Your task to perform on an android device: Open Wikipedia Image 0: 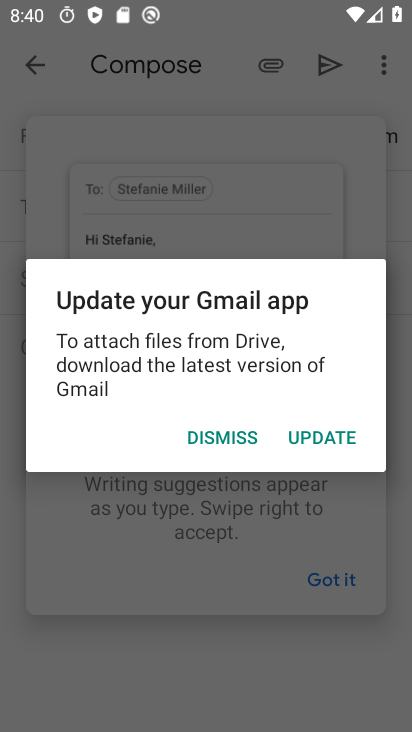
Step 0: press home button
Your task to perform on an android device: Open Wikipedia Image 1: 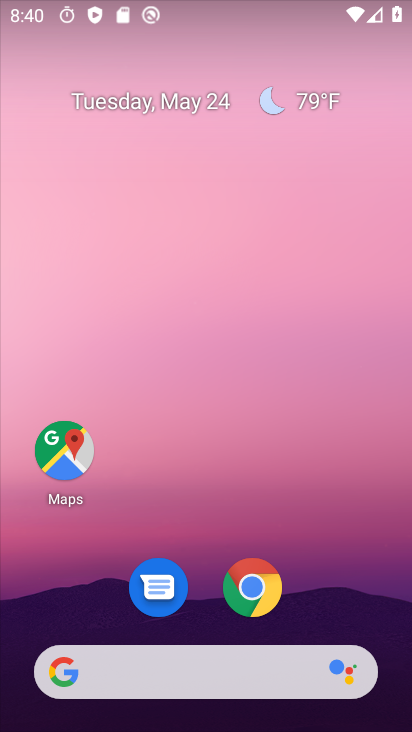
Step 1: click (253, 586)
Your task to perform on an android device: Open Wikipedia Image 2: 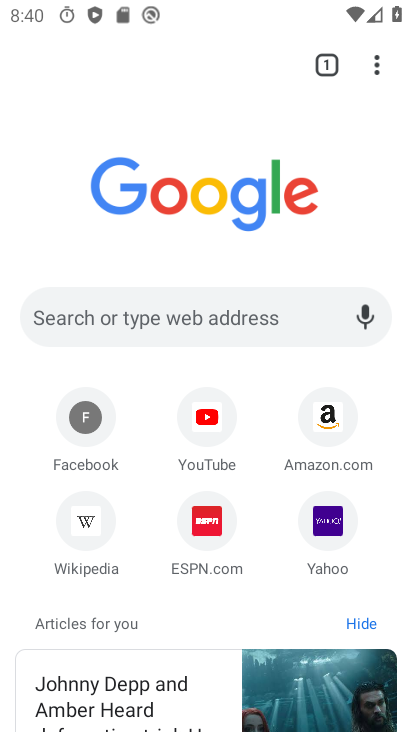
Step 2: click (197, 324)
Your task to perform on an android device: Open Wikipedia Image 3: 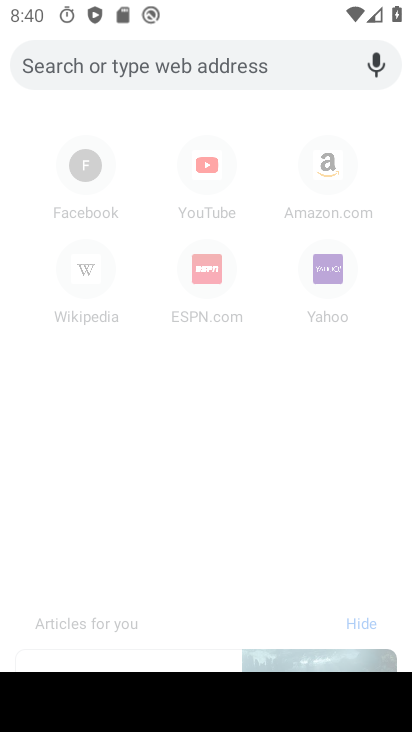
Step 3: type "Wikipedia"
Your task to perform on an android device: Open Wikipedia Image 4: 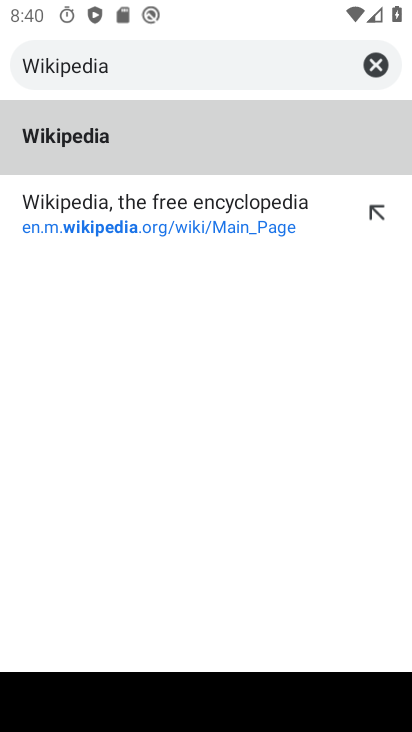
Step 4: click (42, 140)
Your task to perform on an android device: Open Wikipedia Image 5: 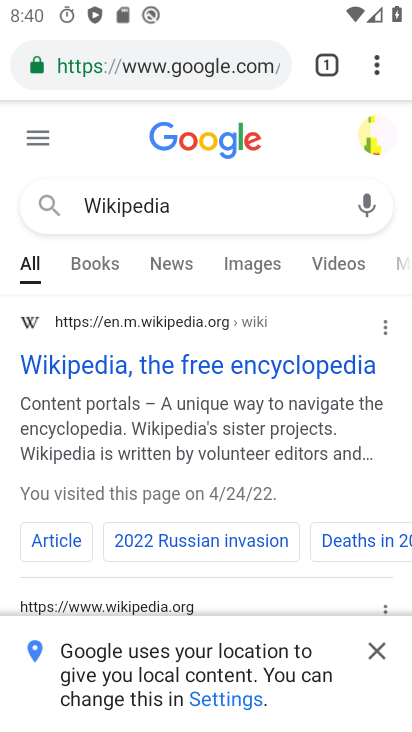
Step 5: click (130, 372)
Your task to perform on an android device: Open Wikipedia Image 6: 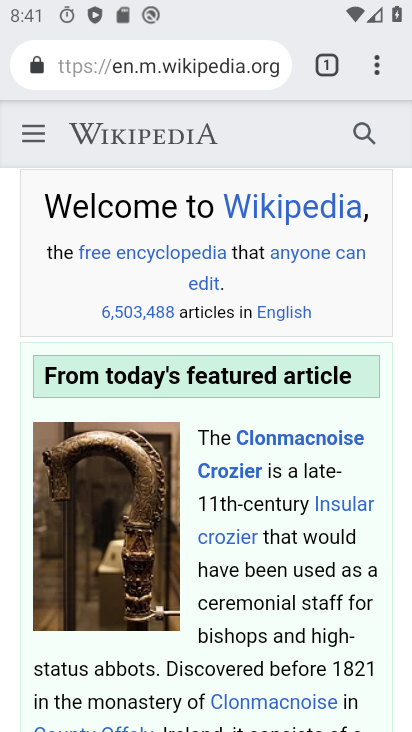
Step 6: task complete